Your task to perform on an android device: choose inbox layout in the gmail app Image 0: 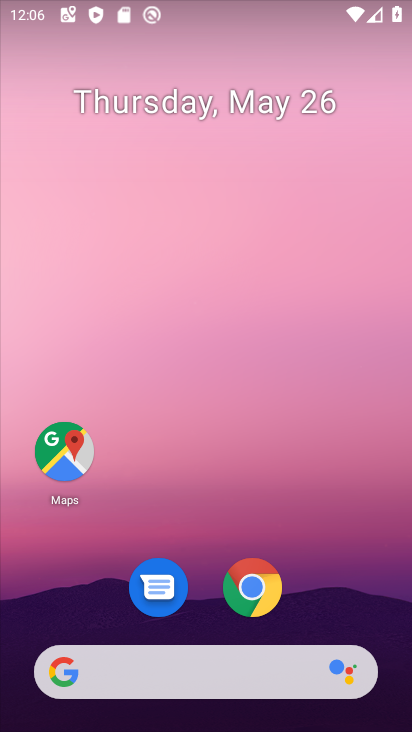
Step 0: press home button
Your task to perform on an android device: choose inbox layout in the gmail app Image 1: 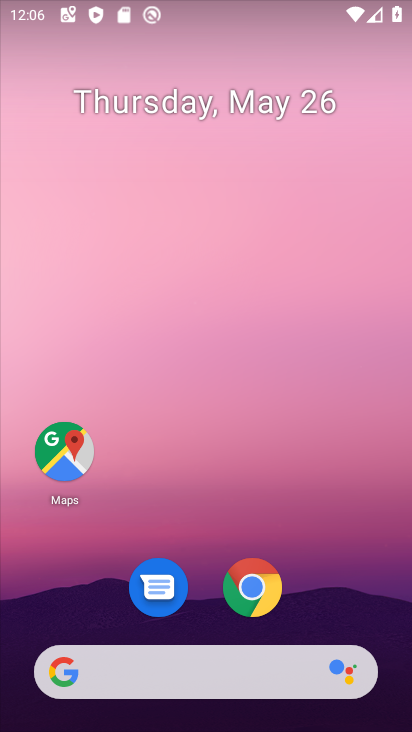
Step 1: drag from (207, 632) to (280, 80)
Your task to perform on an android device: choose inbox layout in the gmail app Image 2: 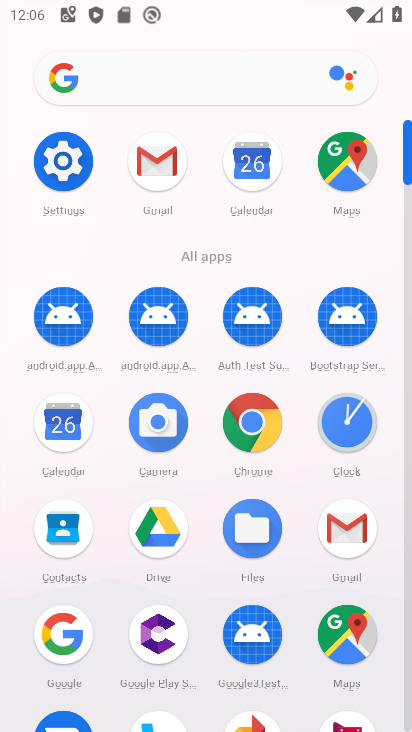
Step 2: click (153, 153)
Your task to perform on an android device: choose inbox layout in the gmail app Image 3: 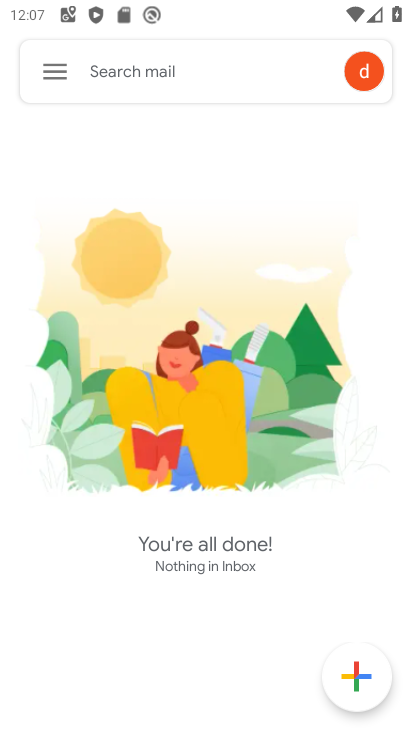
Step 3: click (56, 72)
Your task to perform on an android device: choose inbox layout in the gmail app Image 4: 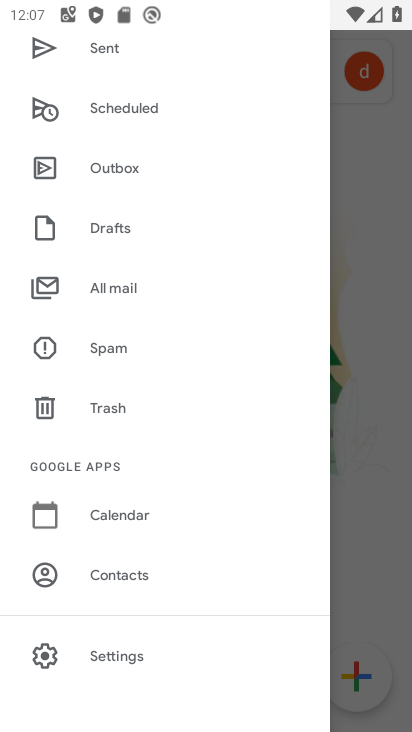
Step 4: drag from (168, 615) to (206, 102)
Your task to perform on an android device: choose inbox layout in the gmail app Image 5: 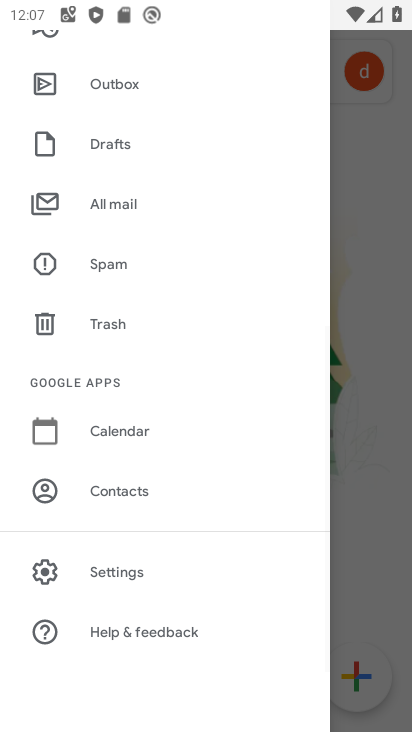
Step 5: click (149, 568)
Your task to perform on an android device: choose inbox layout in the gmail app Image 6: 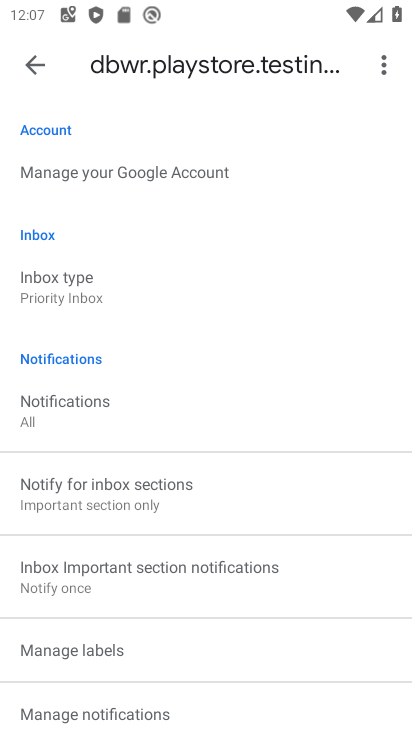
Step 6: click (123, 287)
Your task to perform on an android device: choose inbox layout in the gmail app Image 7: 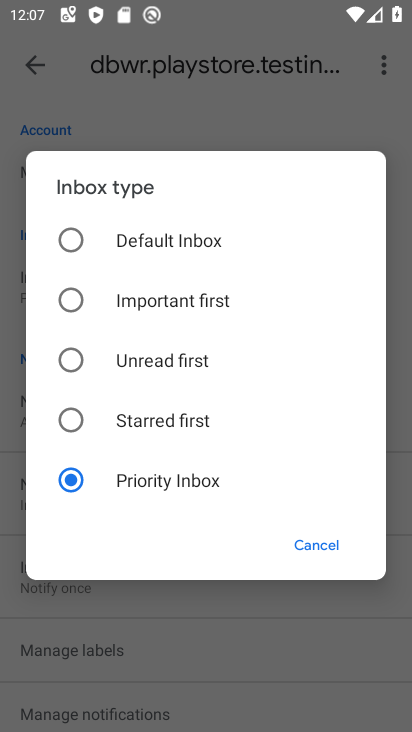
Step 7: click (72, 239)
Your task to perform on an android device: choose inbox layout in the gmail app Image 8: 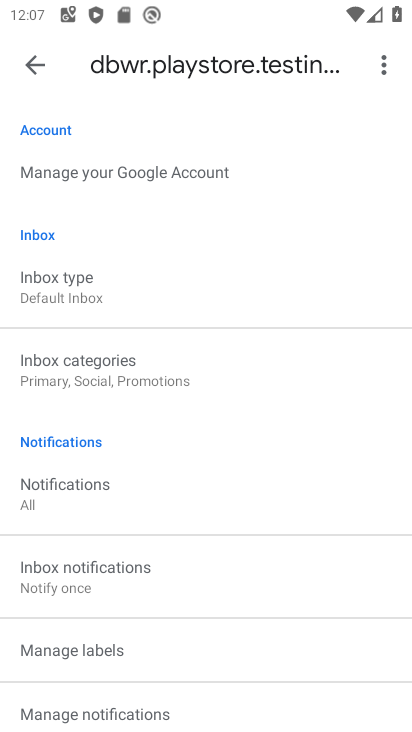
Step 8: task complete